Your task to perform on an android device: Search for dell alienware on bestbuy.com, select the first entry, and add it to the cart. Image 0: 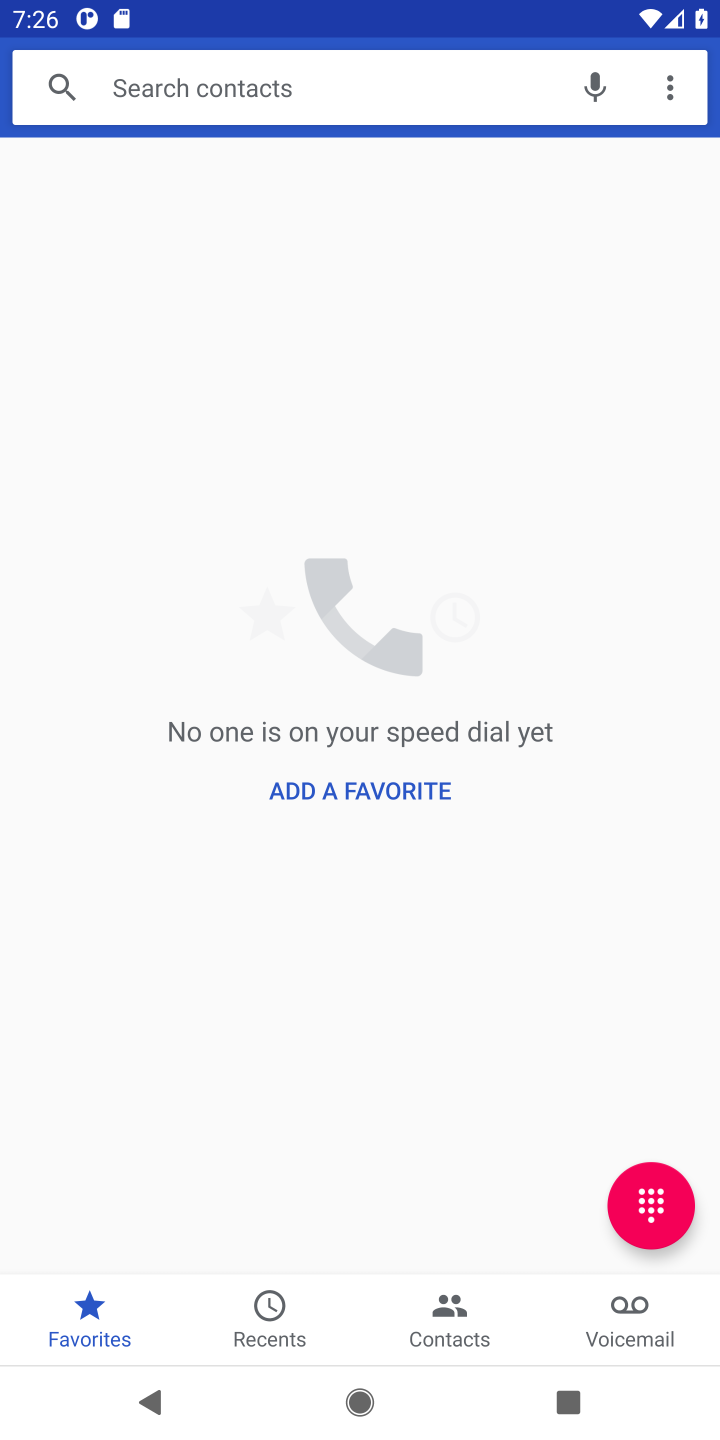
Step 0: press home button
Your task to perform on an android device: Search for dell alienware on bestbuy.com, select the first entry, and add it to the cart. Image 1: 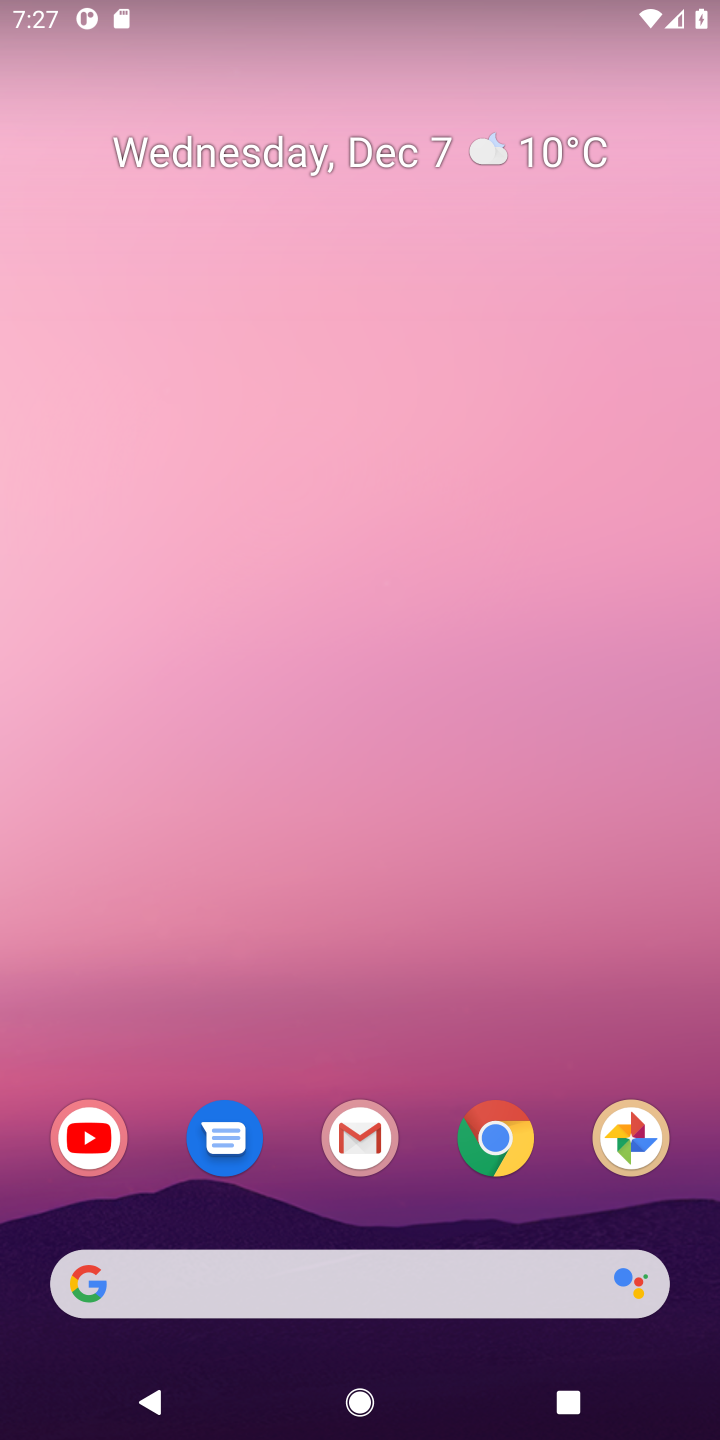
Step 1: click (210, 1288)
Your task to perform on an android device: Search for dell alienware on bestbuy.com, select the first entry, and add it to the cart. Image 2: 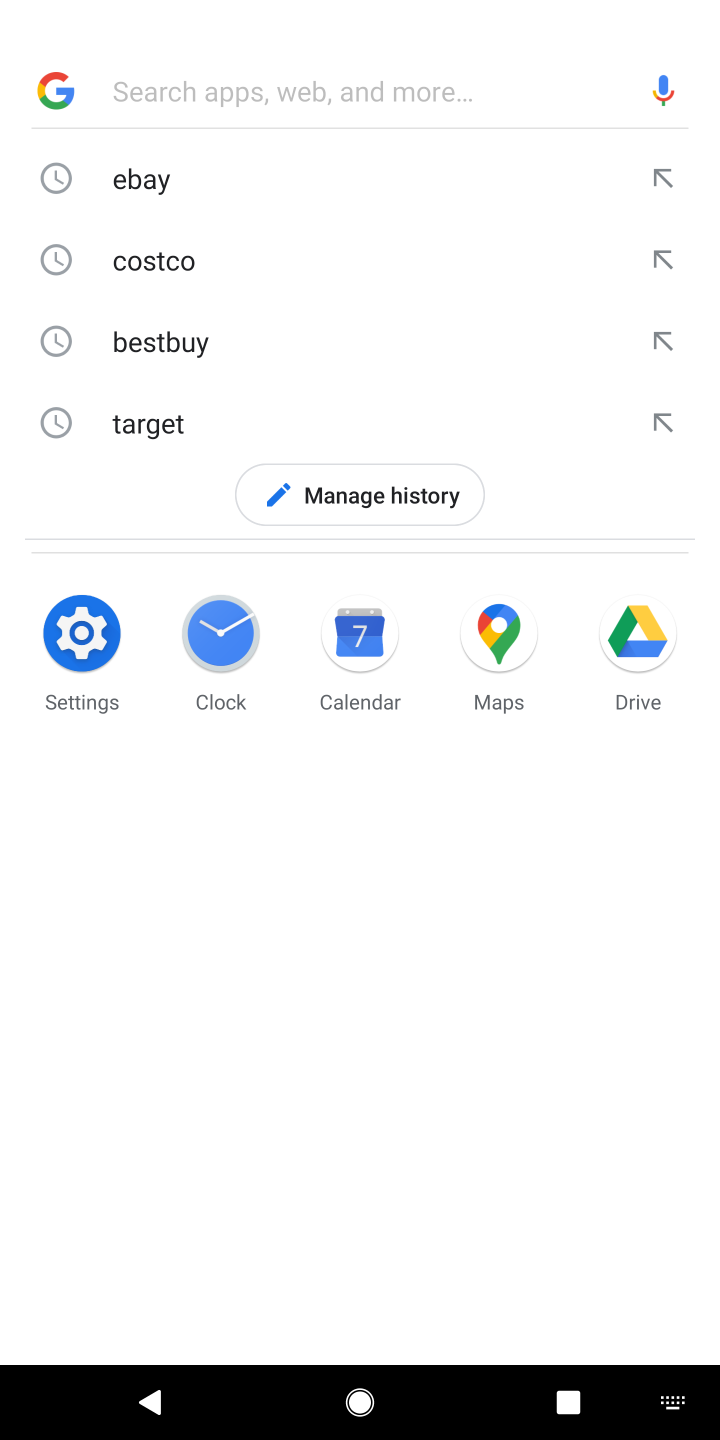
Step 2: type " bestbuy.com"
Your task to perform on an android device: Search for dell alienware on bestbuy.com, select the first entry, and add it to the cart. Image 3: 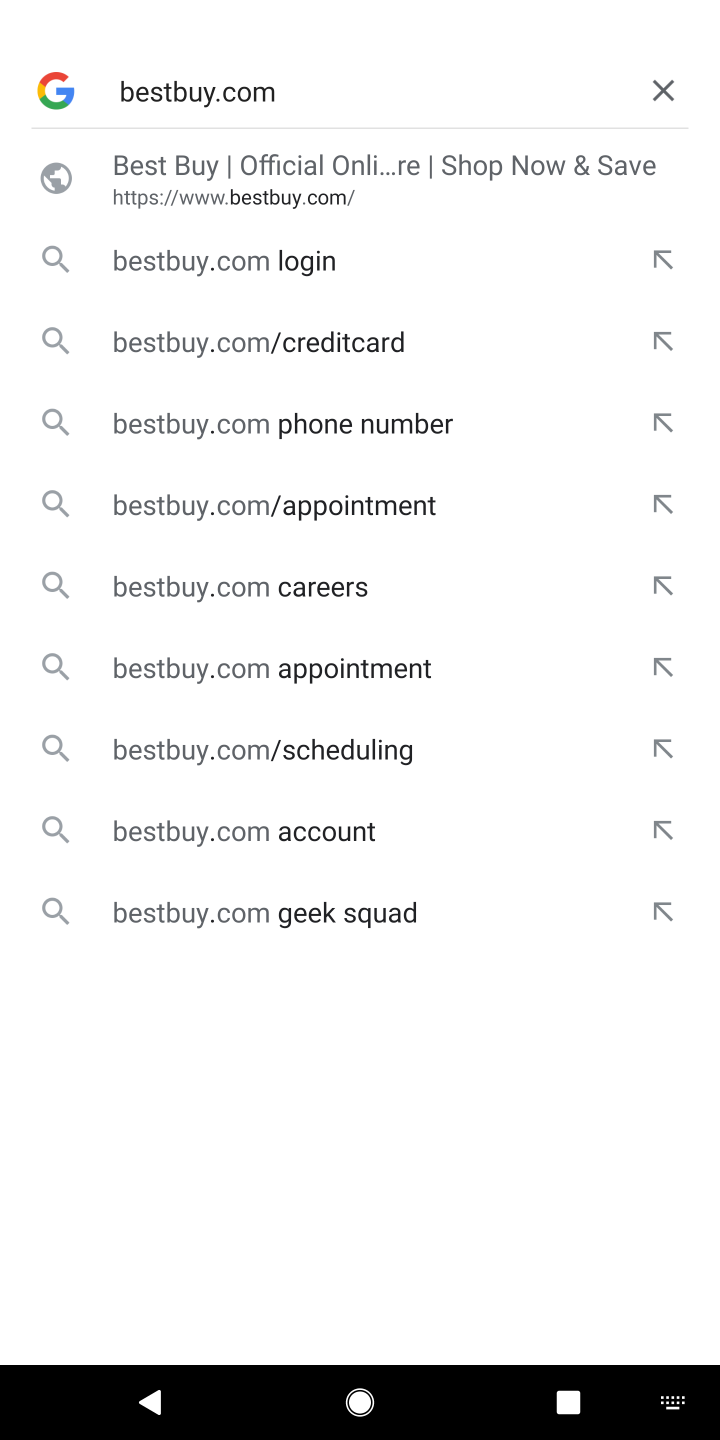
Step 3: press enter
Your task to perform on an android device: Search for dell alienware on bestbuy.com, select the first entry, and add it to the cart. Image 4: 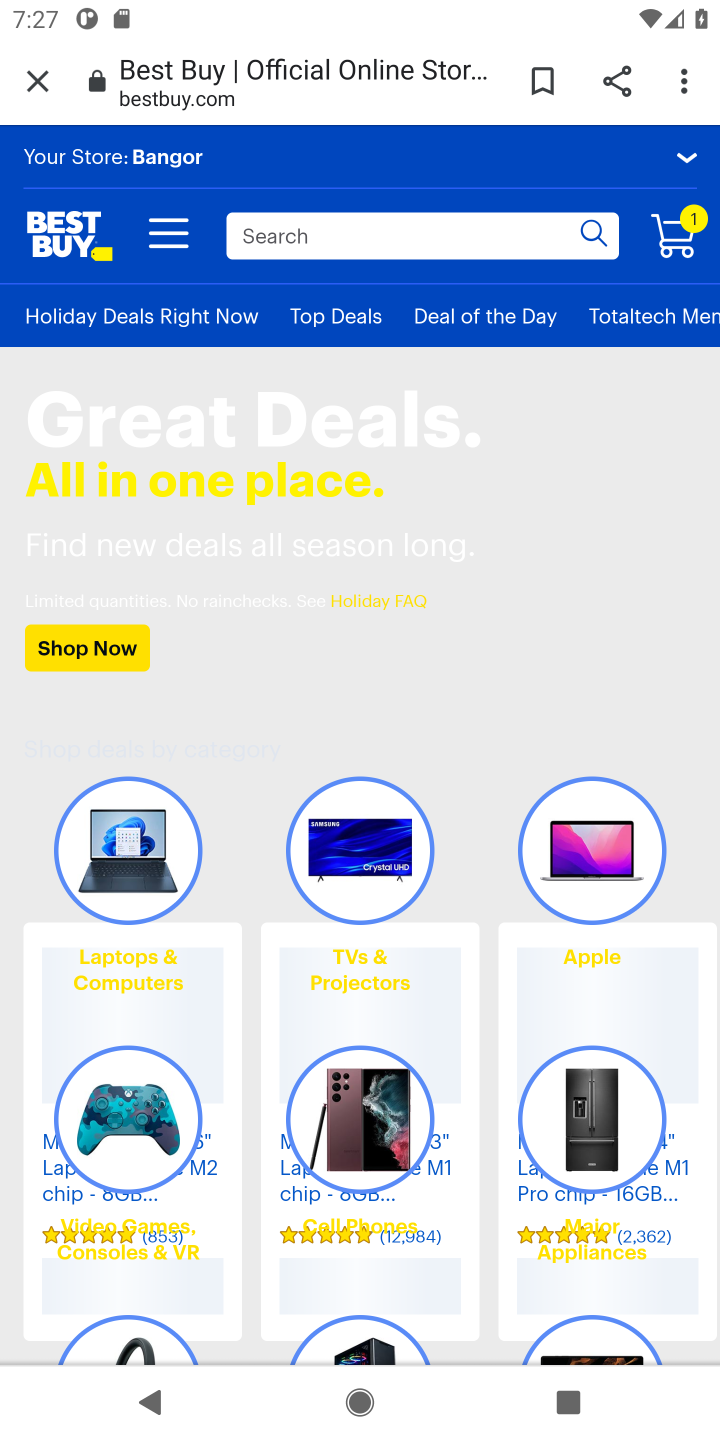
Step 4: click (278, 225)
Your task to perform on an android device: Search for dell alienware on bestbuy.com, select the first entry, and add it to the cart. Image 5: 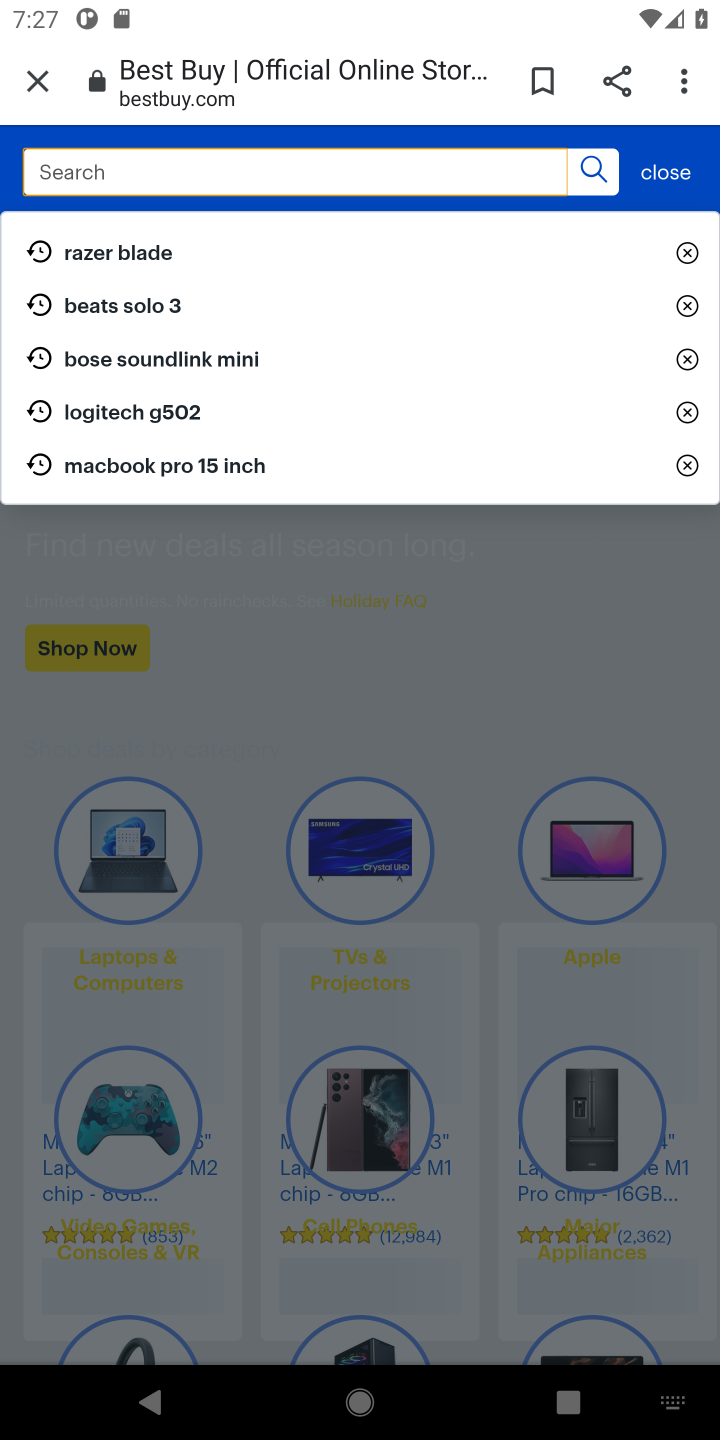
Step 5: type " dell alienware"
Your task to perform on an android device: Search for dell alienware on bestbuy.com, select the first entry, and add it to the cart. Image 6: 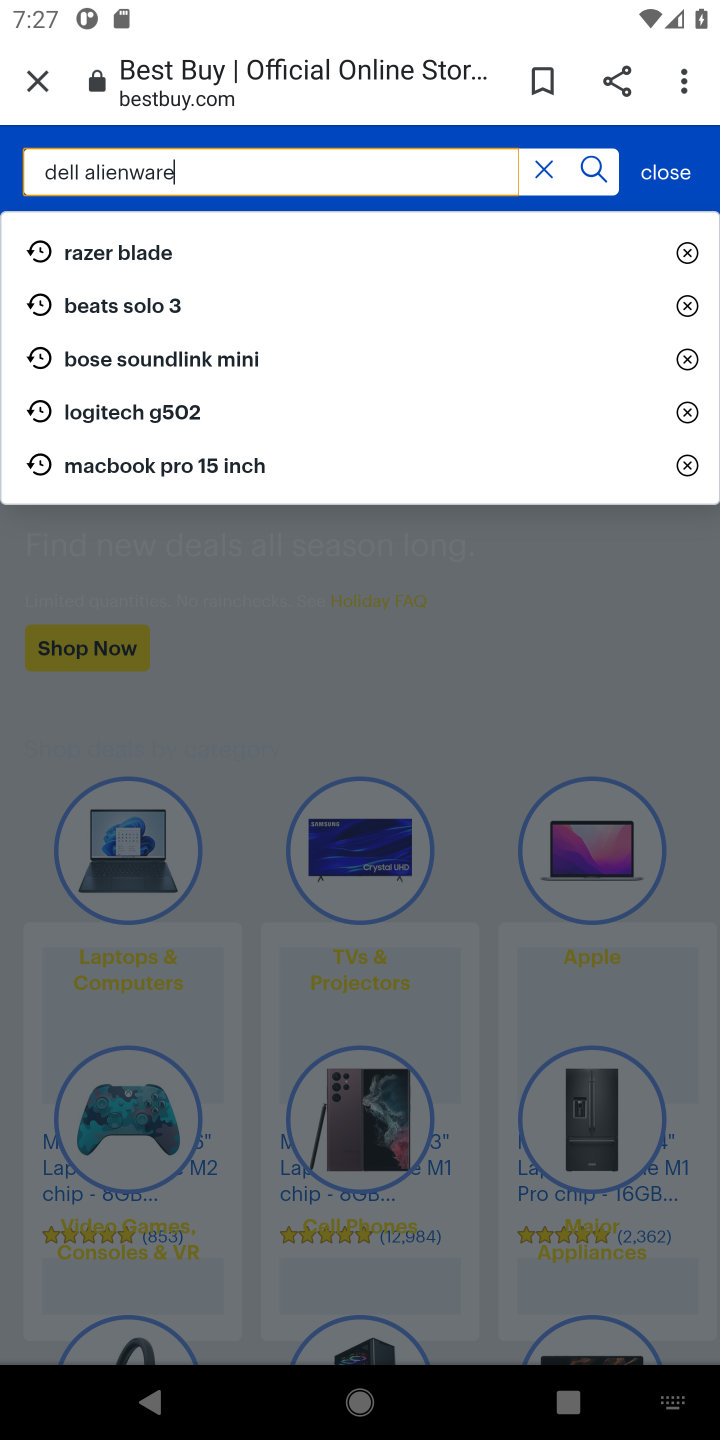
Step 6: press enter
Your task to perform on an android device: Search for dell alienware on bestbuy.com, select the first entry, and add it to the cart. Image 7: 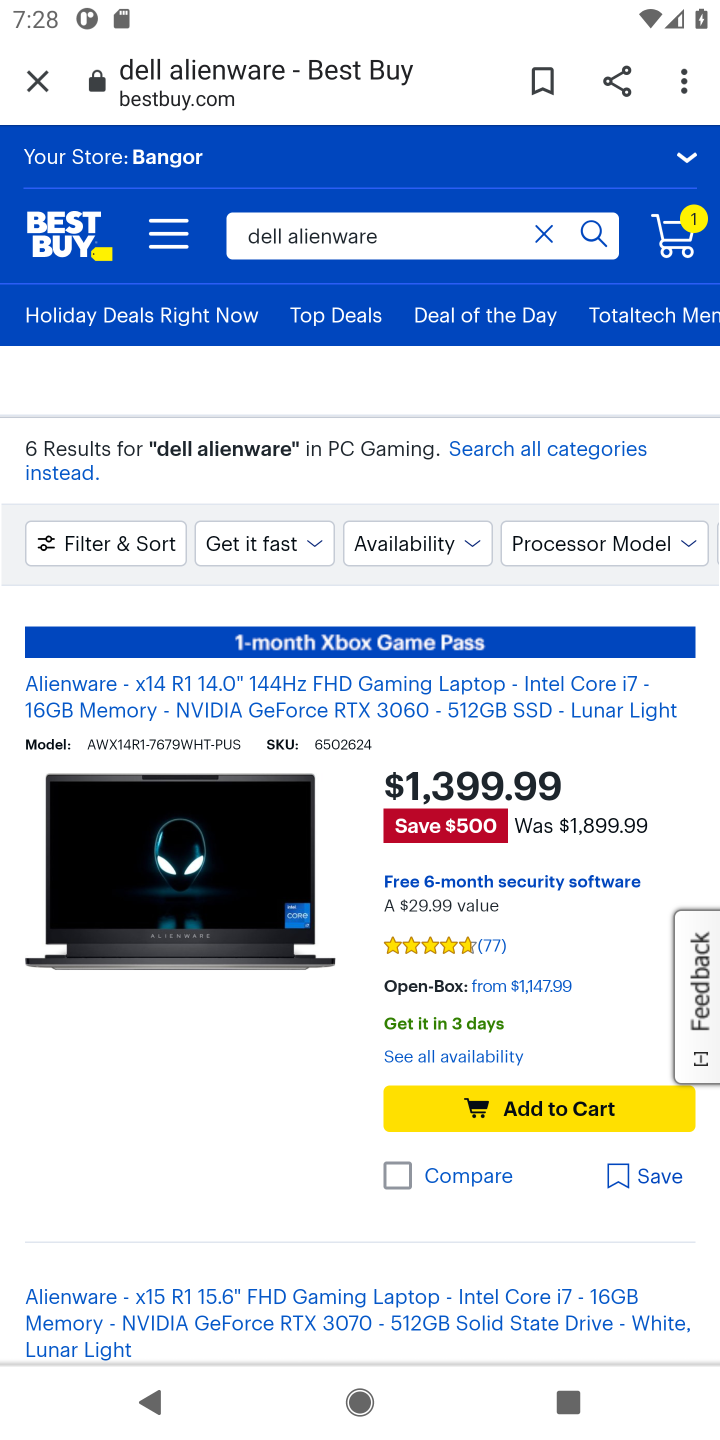
Step 7: click (496, 1095)
Your task to perform on an android device: Search for dell alienware on bestbuy.com, select the first entry, and add it to the cart. Image 8: 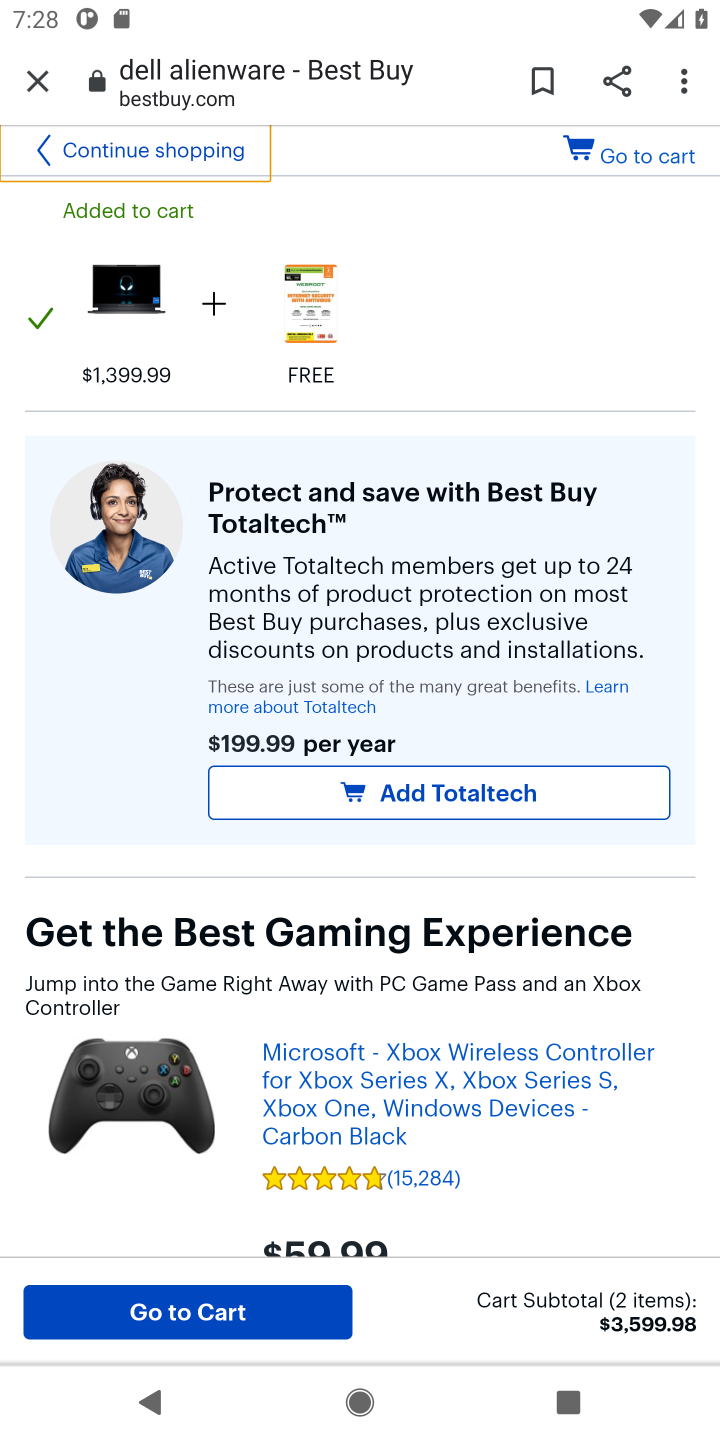
Step 8: task complete